Your task to perform on an android device: What's on my calendar tomorrow? Image 0: 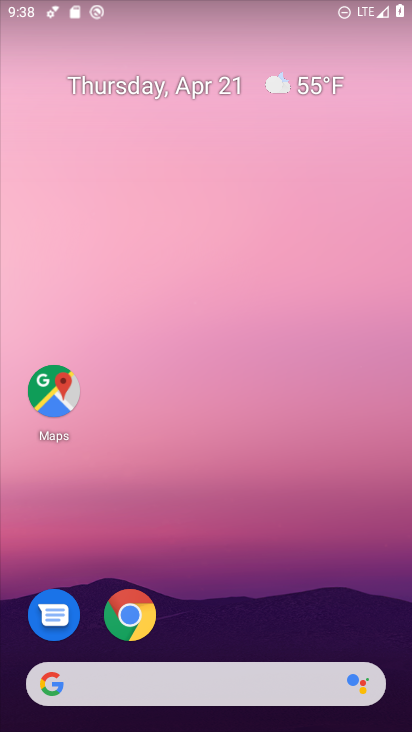
Step 0: click (286, 99)
Your task to perform on an android device: What's on my calendar tomorrow? Image 1: 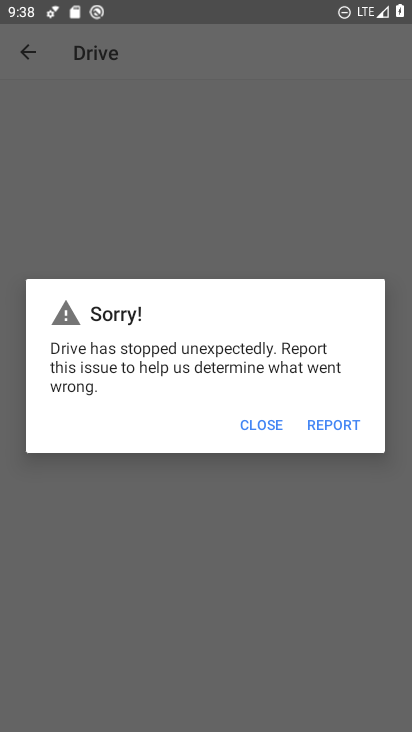
Step 1: press home button
Your task to perform on an android device: What's on my calendar tomorrow? Image 2: 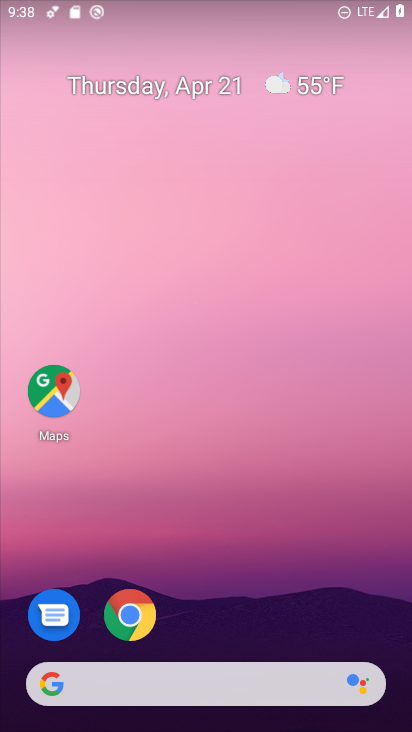
Step 2: drag from (323, 599) to (372, 39)
Your task to perform on an android device: What's on my calendar tomorrow? Image 3: 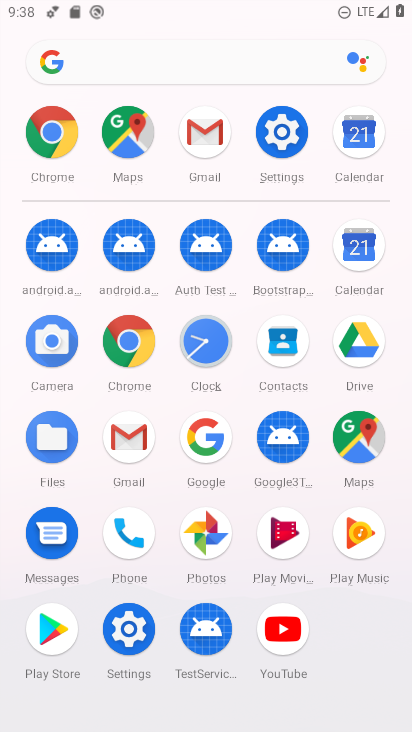
Step 3: click (374, 243)
Your task to perform on an android device: What's on my calendar tomorrow? Image 4: 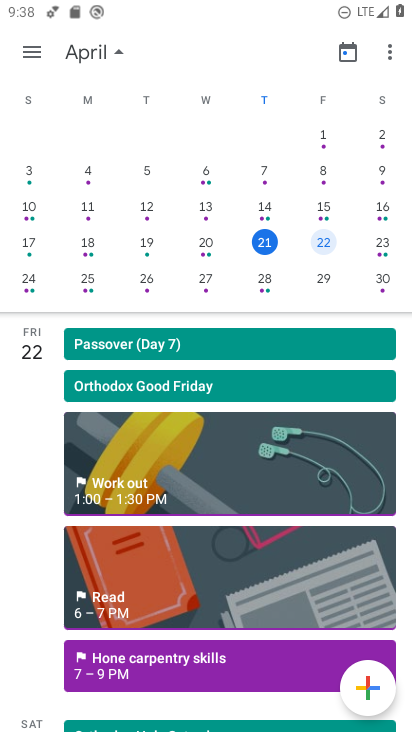
Step 4: click (334, 247)
Your task to perform on an android device: What's on my calendar tomorrow? Image 5: 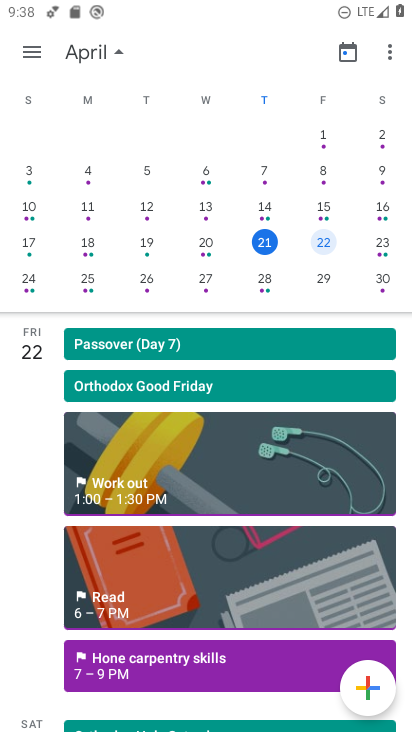
Step 5: task complete